Your task to perform on an android device: open sync settings in chrome Image 0: 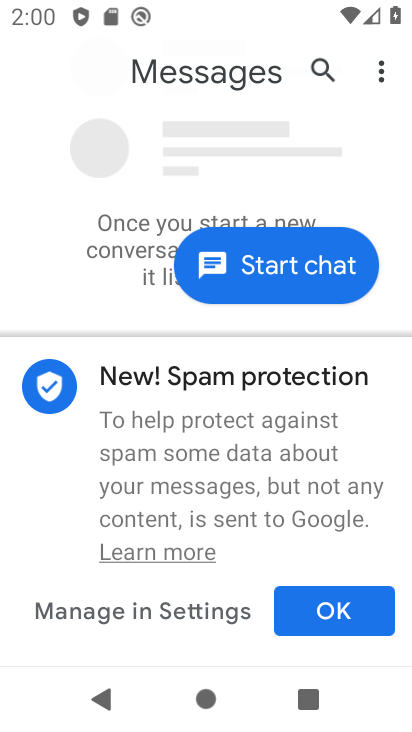
Step 0: press home button
Your task to perform on an android device: open sync settings in chrome Image 1: 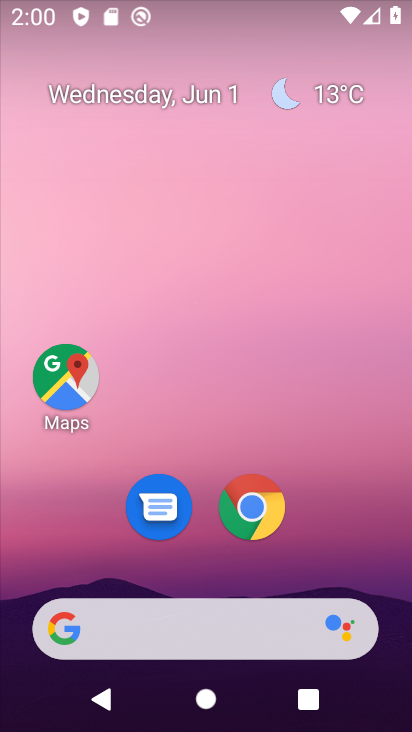
Step 1: click (265, 515)
Your task to perform on an android device: open sync settings in chrome Image 2: 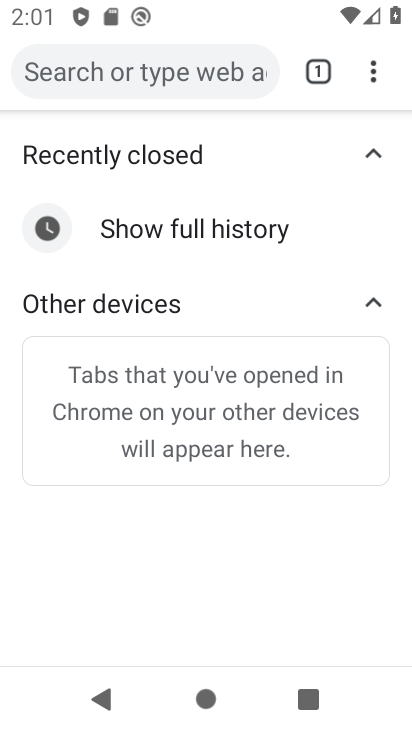
Step 2: click (374, 75)
Your task to perform on an android device: open sync settings in chrome Image 3: 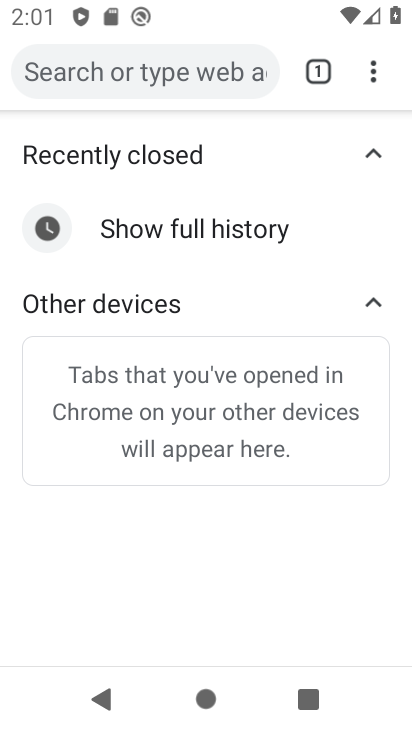
Step 3: click (376, 65)
Your task to perform on an android device: open sync settings in chrome Image 4: 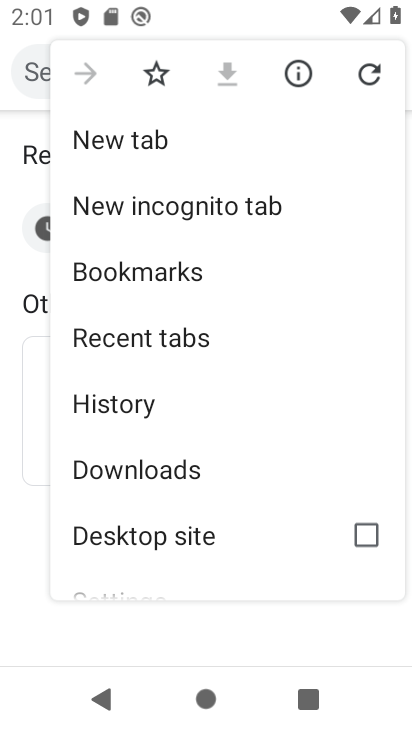
Step 4: drag from (222, 501) to (211, 176)
Your task to perform on an android device: open sync settings in chrome Image 5: 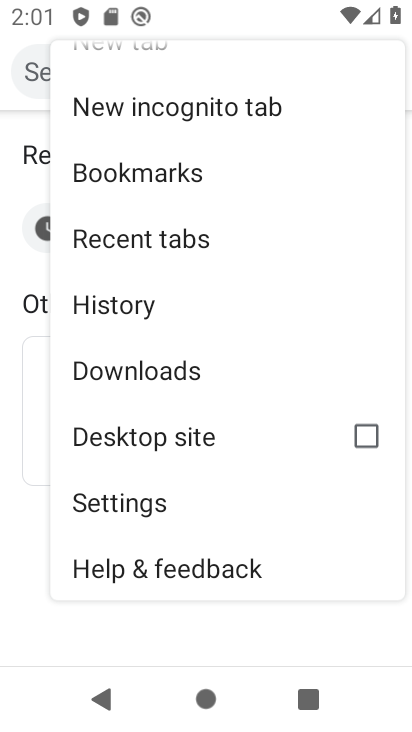
Step 5: click (125, 505)
Your task to perform on an android device: open sync settings in chrome Image 6: 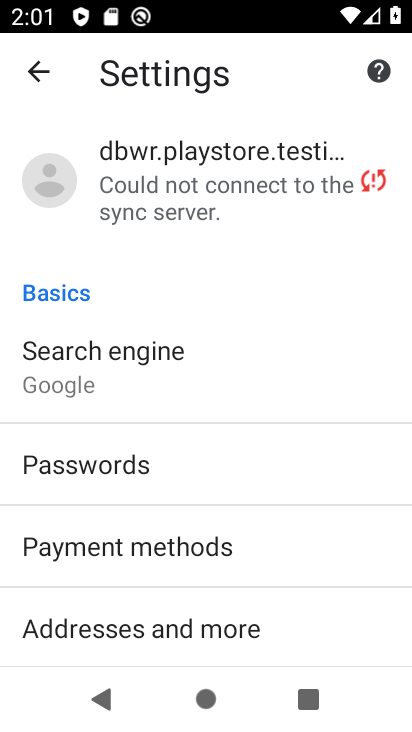
Step 6: click (176, 200)
Your task to perform on an android device: open sync settings in chrome Image 7: 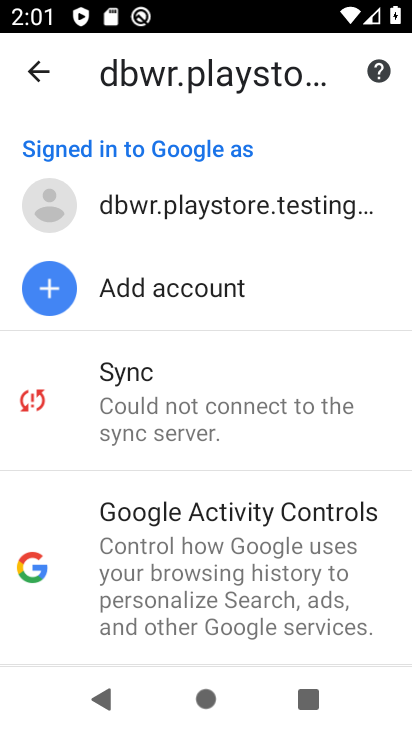
Step 7: click (125, 422)
Your task to perform on an android device: open sync settings in chrome Image 8: 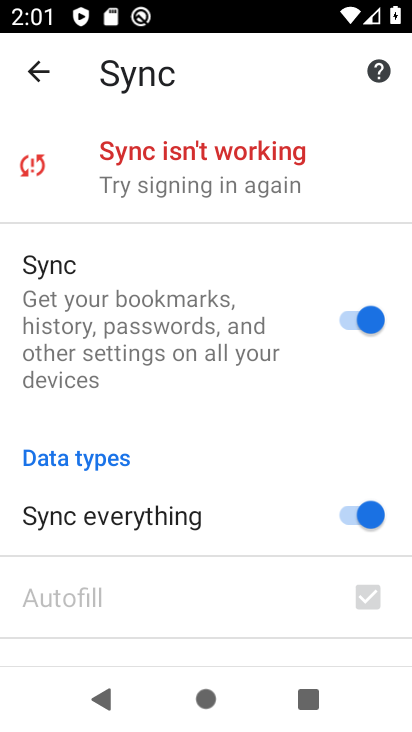
Step 8: task complete